Your task to perform on an android device: delete a single message in the gmail app Image 0: 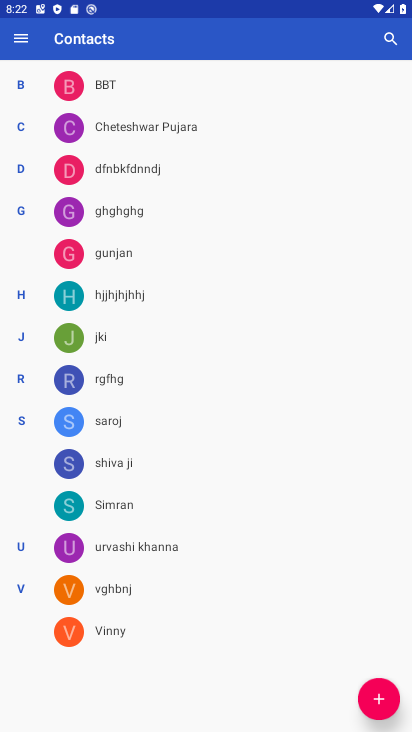
Step 0: press home button
Your task to perform on an android device: delete a single message in the gmail app Image 1: 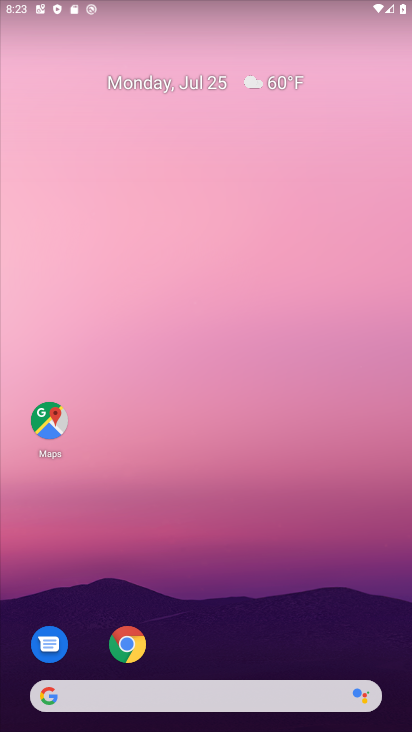
Step 1: drag from (288, 579) to (265, 125)
Your task to perform on an android device: delete a single message in the gmail app Image 2: 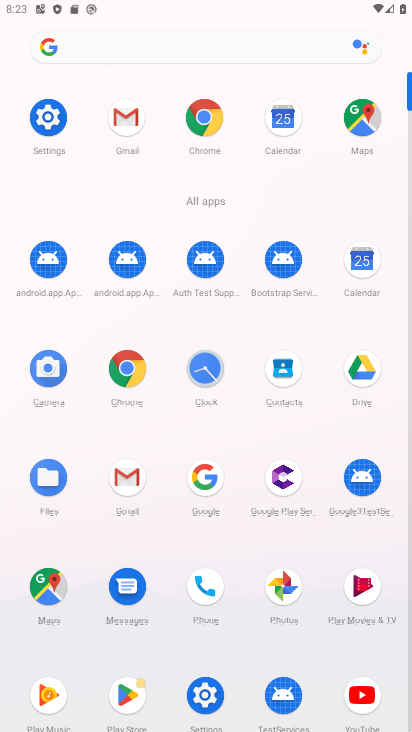
Step 2: click (139, 483)
Your task to perform on an android device: delete a single message in the gmail app Image 3: 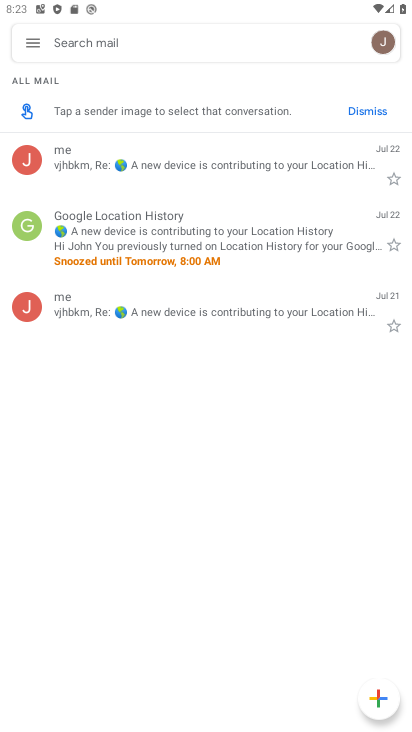
Step 3: click (27, 161)
Your task to perform on an android device: delete a single message in the gmail app Image 4: 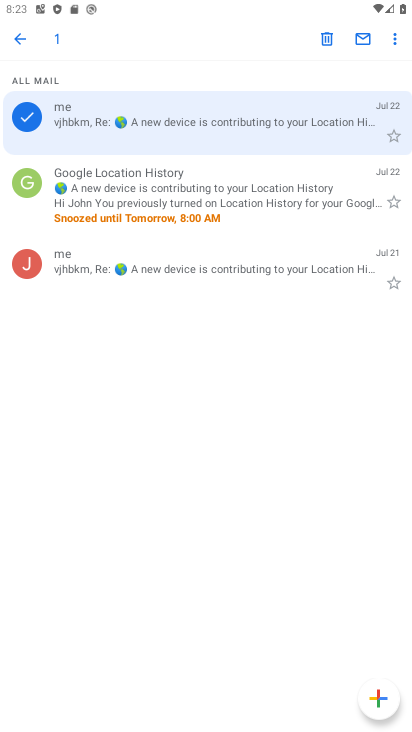
Step 4: click (329, 32)
Your task to perform on an android device: delete a single message in the gmail app Image 5: 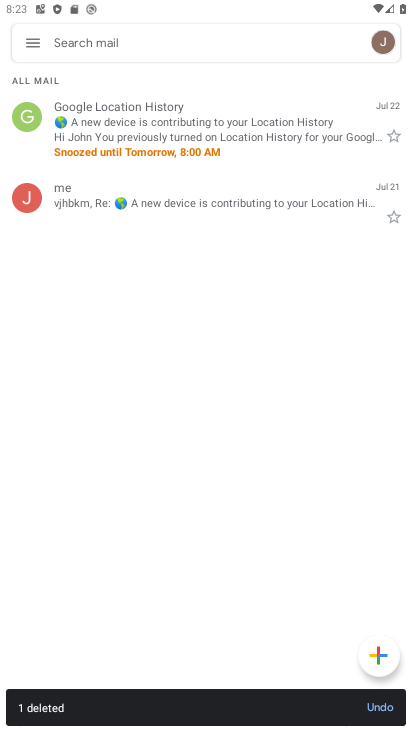
Step 5: task complete